Your task to perform on an android device: toggle improve location accuracy Image 0: 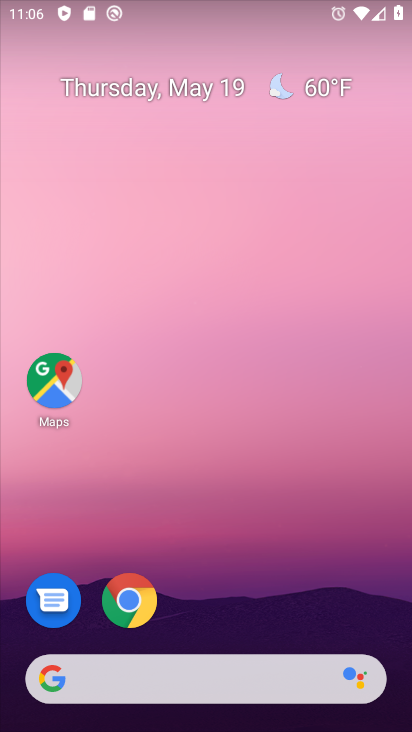
Step 0: drag from (388, 614) to (364, 295)
Your task to perform on an android device: toggle improve location accuracy Image 1: 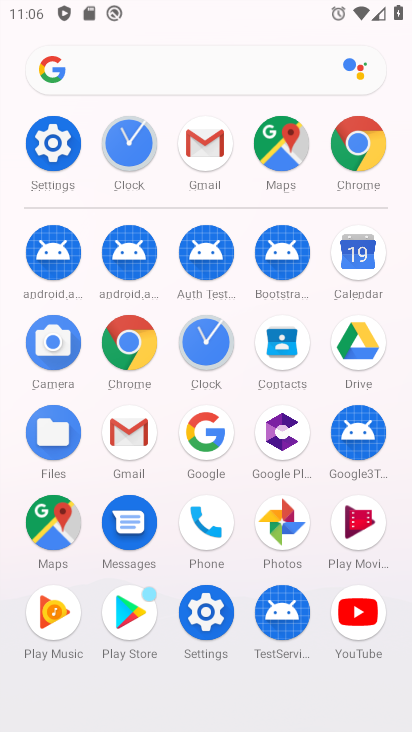
Step 1: click (208, 619)
Your task to perform on an android device: toggle improve location accuracy Image 2: 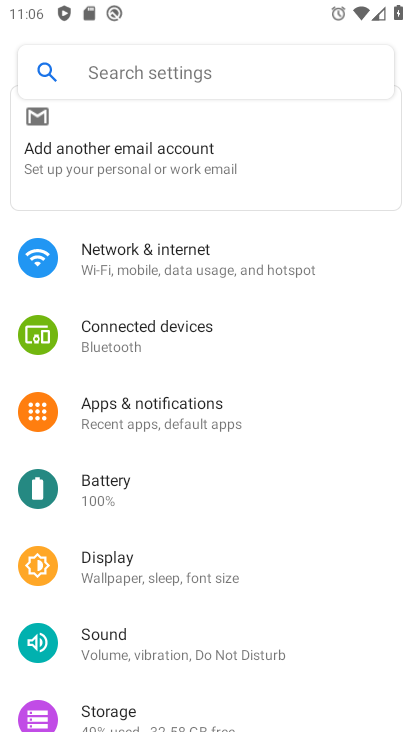
Step 2: drag from (330, 631) to (334, 508)
Your task to perform on an android device: toggle improve location accuracy Image 3: 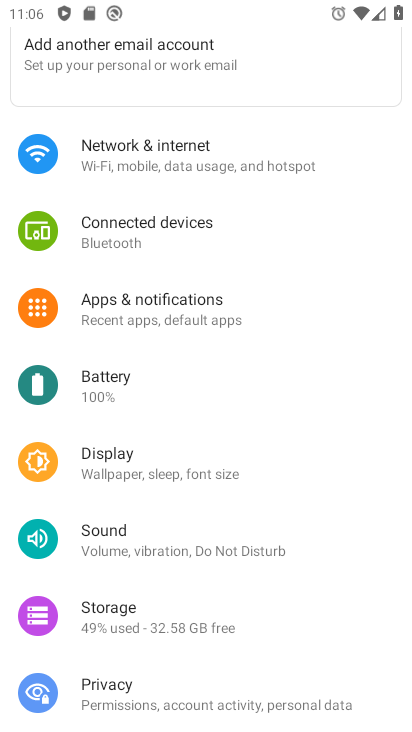
Step 3: drag from (345, 636) to (348, 599)
Your task to perform on an android device: toggle improve location accuracy Image 4: 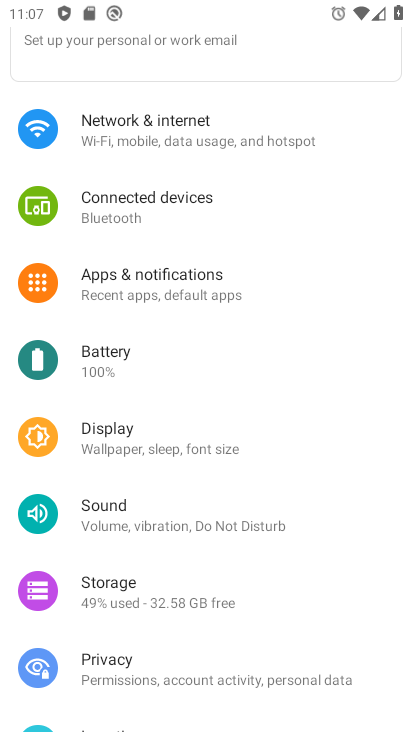
Step 4: drag from (334, 542) to (335, 582)
Your task to perform on an android device: toggle improve location accuracy Image 5: 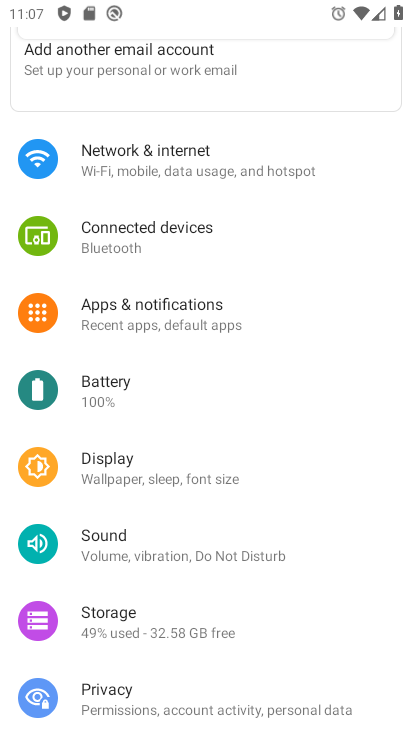
Step 5: drag from (306, 626) to (300, 485)
Your task to perform on an android device: toggle improve location accuracy Image 6: 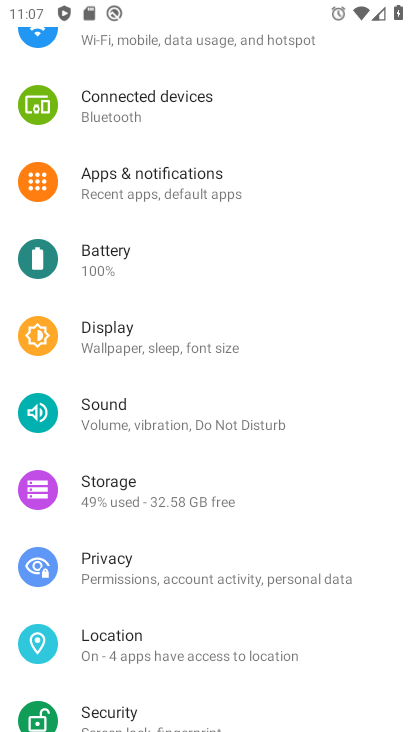
Step 6: drag from (300, 646) to (305, 563)
Your task to perform on an android device: toggle improve location accuracy Image 7: 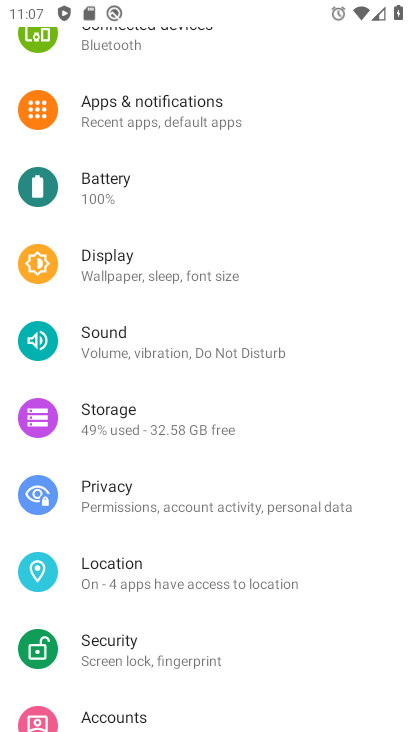
Step 7: click (286, 575)
Your task to perform on an android device: toggle improve location accuracy Image 8: 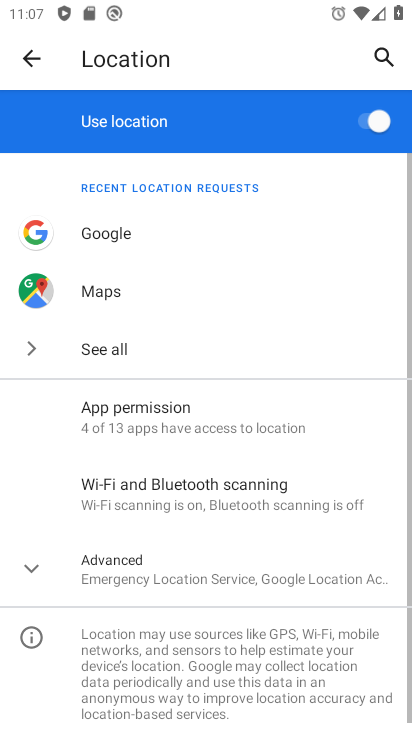
Step 8: click (280, 576)
Your task to perform on an android device: toggle improve location accuracy Image 9: 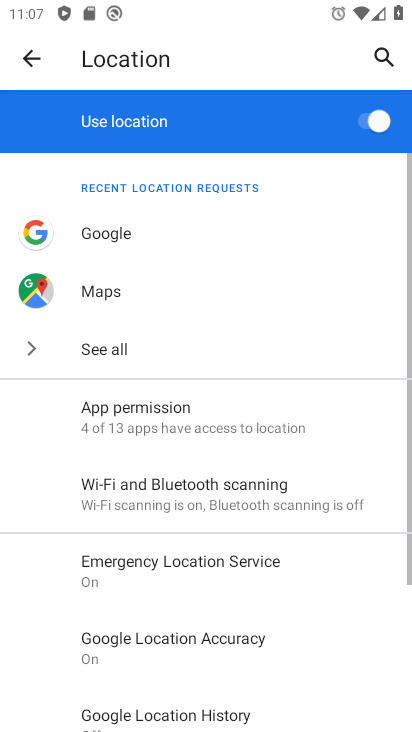
Step 9: drag from (301, 646) to (312, 539)
Your task to perform on an android device: toggle improve location accuracy Image 10: 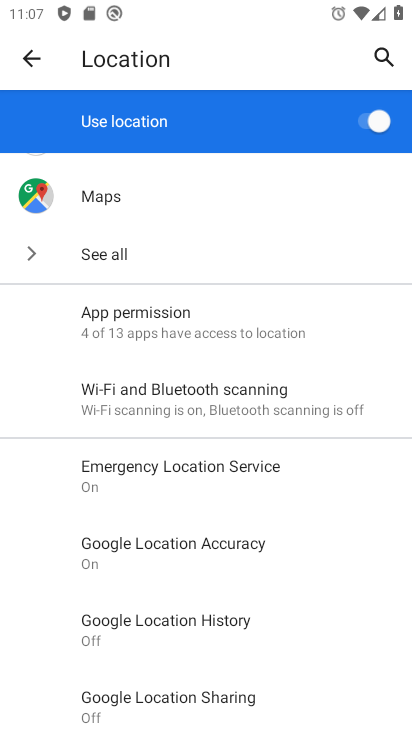
Step 10: click (194, 553)
Your task to perform on an android device: toggle improve location accuracy Image 11: 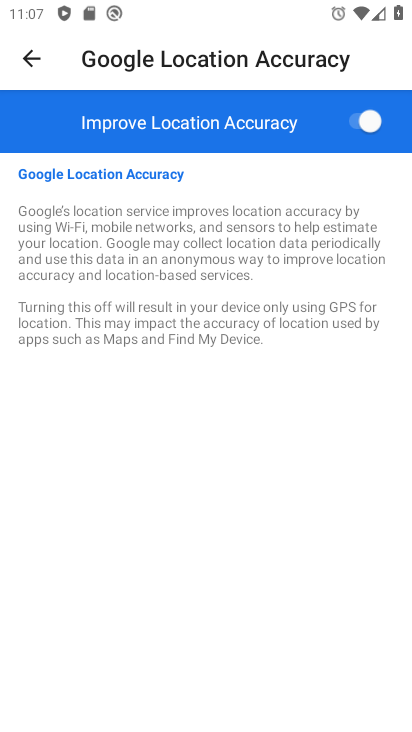
Step 11: click (357, 127)
Your task to perform on an android device: toggle improve location accuracy Image 12: 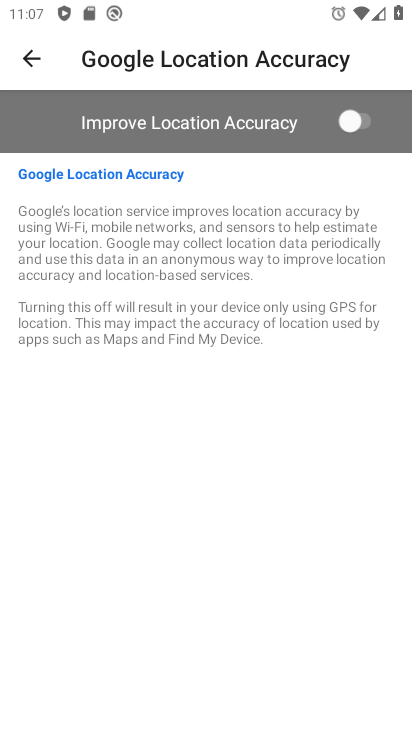
Step 12: task complete